Your task to perform on an android device: Search for the best selling coffee table on Crate & Barrel Image 0: 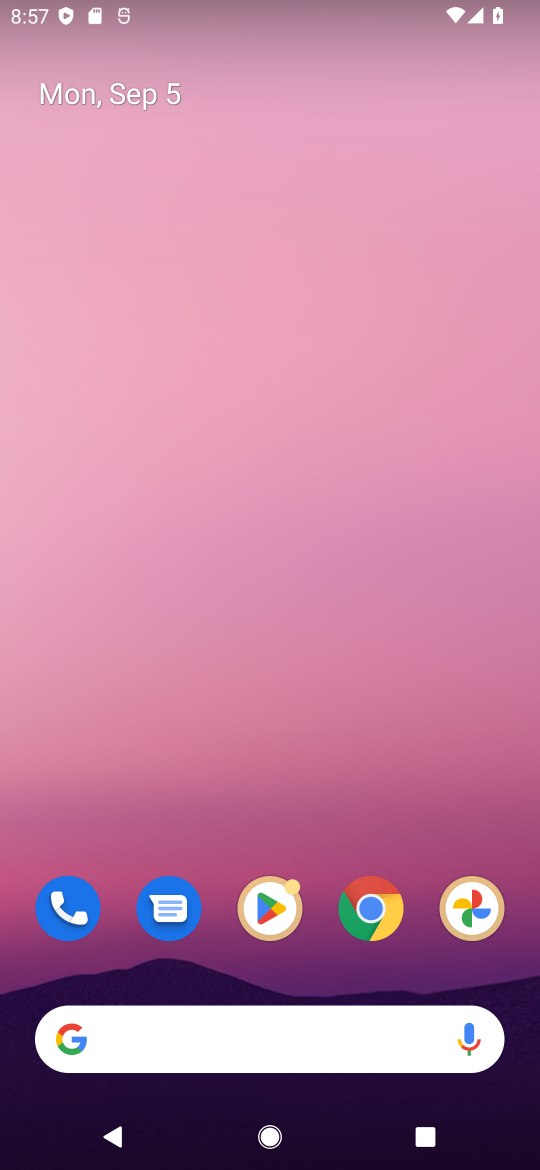
Step 0: click (189, 10)
Your task to perform on an android device: Search for the best selling coffee table on Crate & Barrel Image 1: 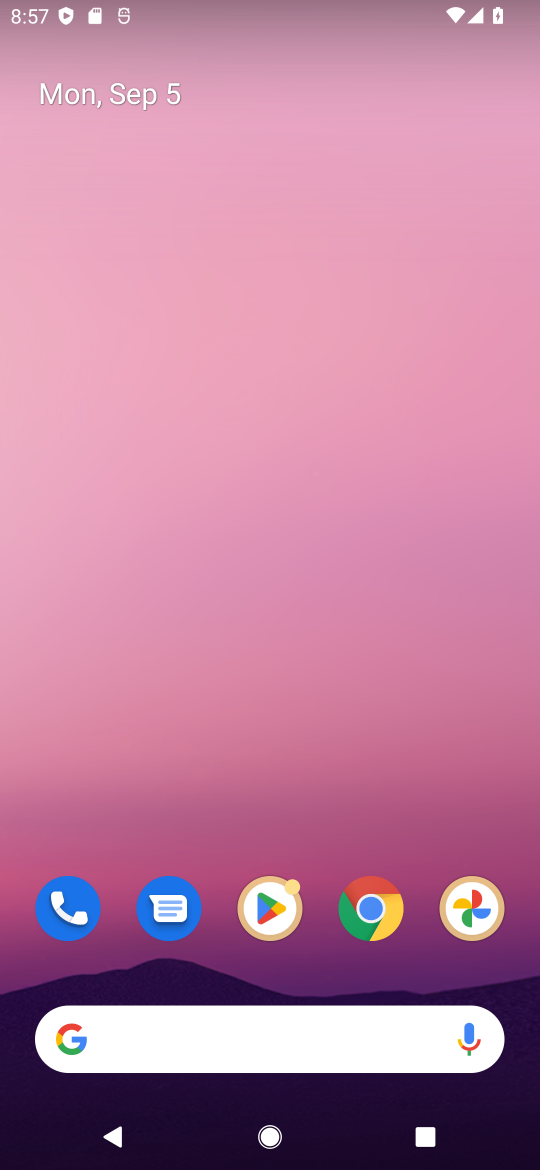
Step 1: click (385, 891)
Your task to perform on an android device: Search for the best selling coffee table on Crate & Barrel Image 2: 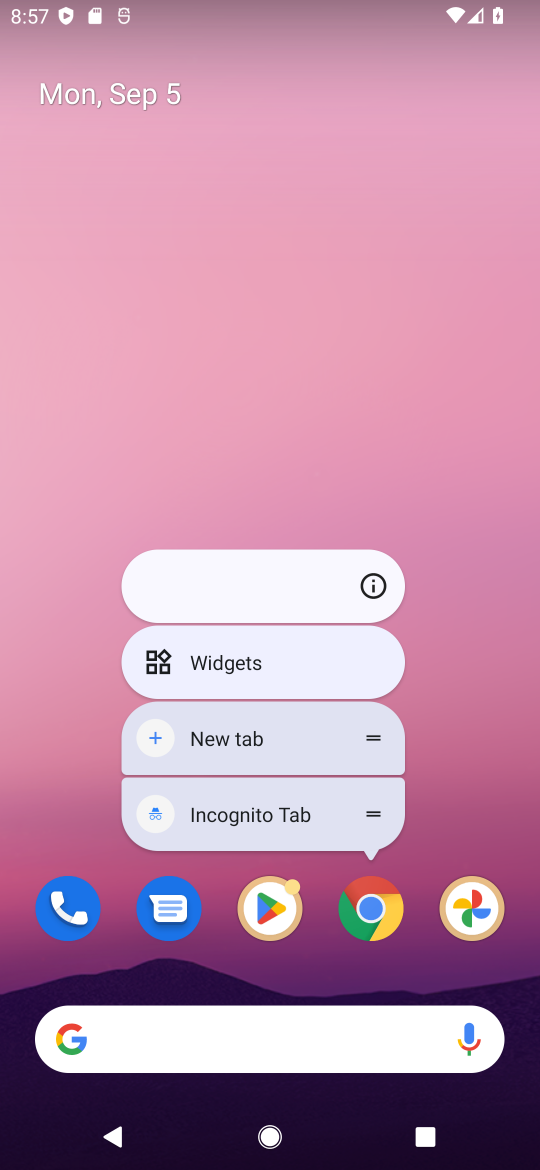
Step 2: click (385, 904)
Your task to perform on an android device: Search for the best selling coffee table on Crate & Barrel Image 3: 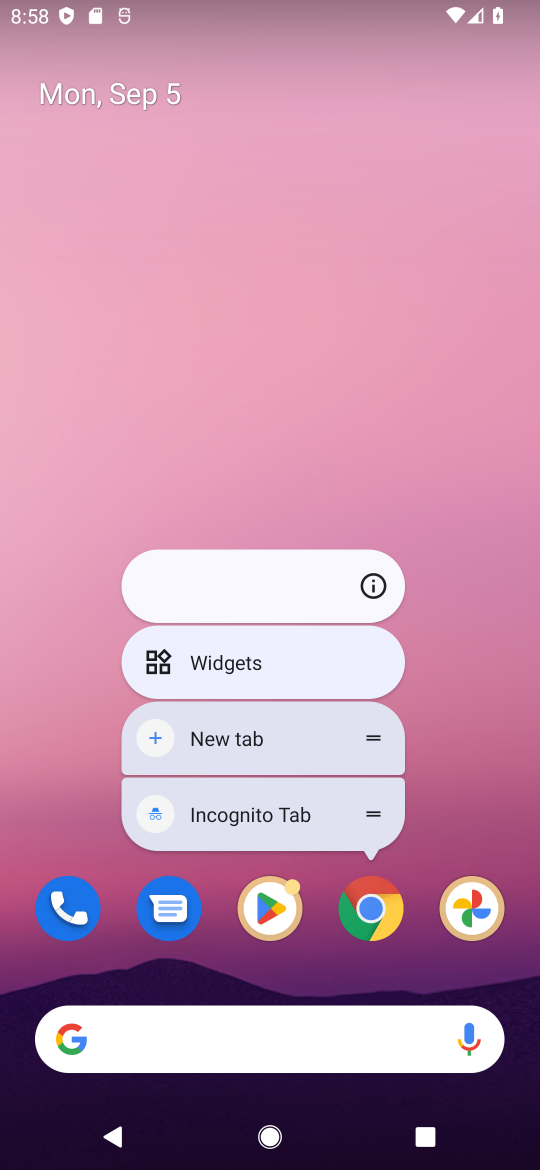
Step 3: click (375, 948)
Your task to perform on an android device: Search for the best selling coffee table on Crate & Barrel Image 4: 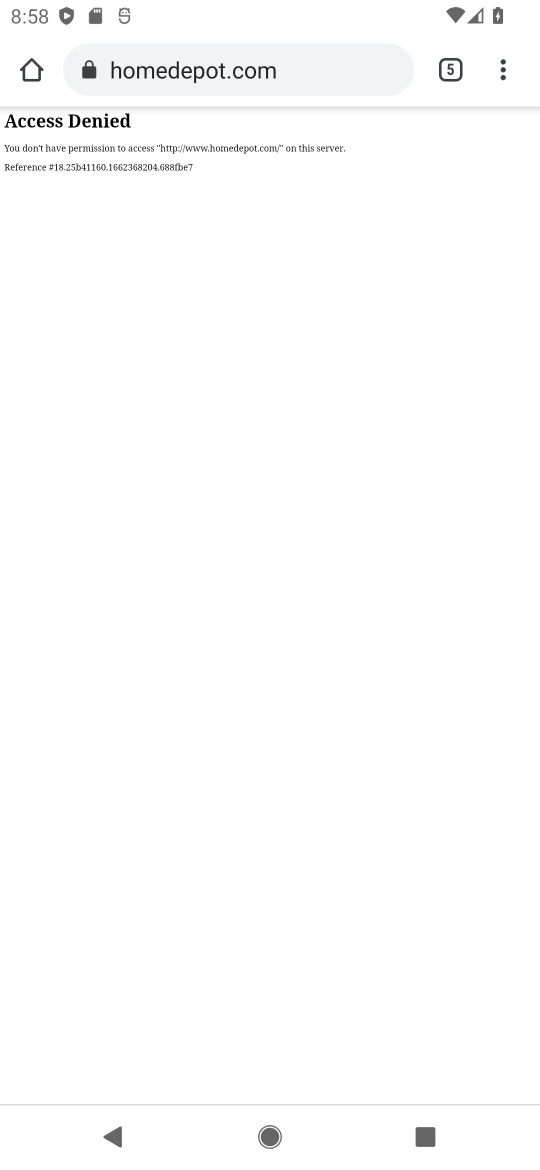
Step 4: click (341, 65)
Your task to perform on an android device: Search for the best selling coffee table on Crate & Barrel Image 5: 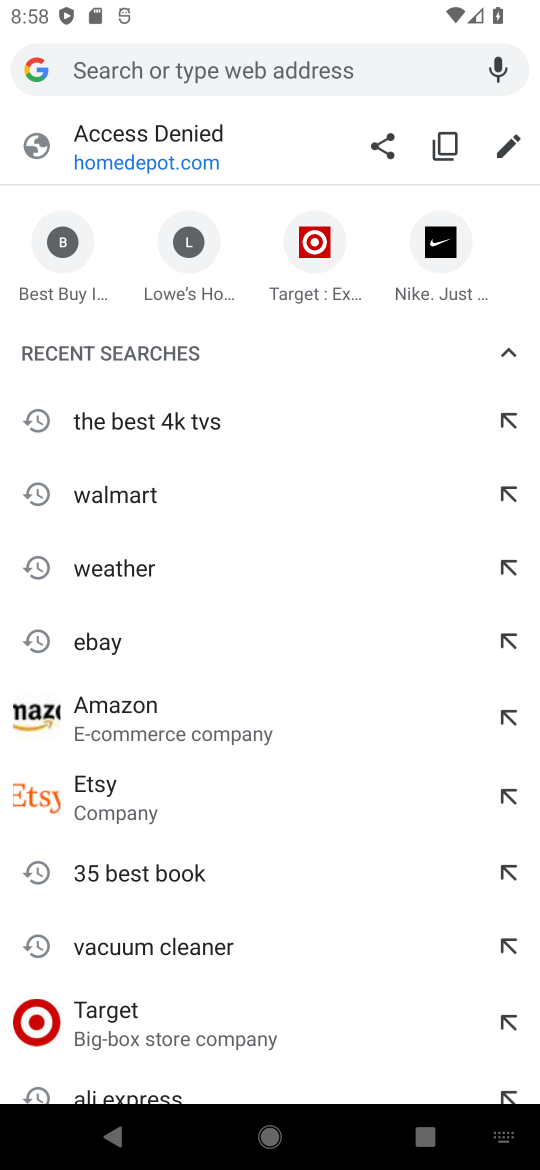
Step 5: type "Crate & Barrel"
Your task to perform on an android device: Search for the best selling coffee table on Crate & Barrel Image 6: 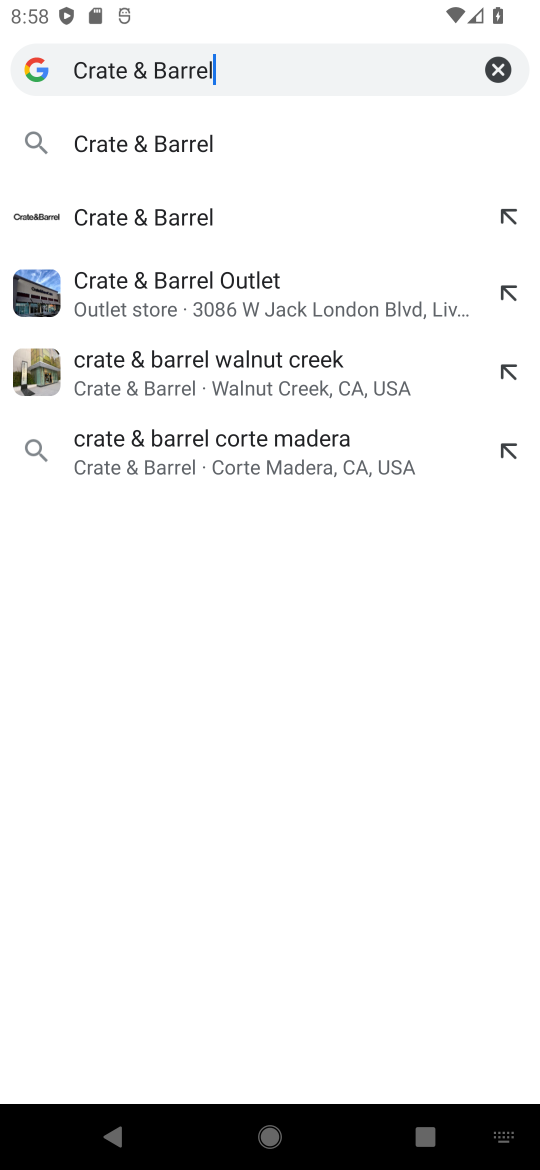
Step 6: click (169, 147)
Your task to perform on an android device: Search for the best selling coffee table on Crate & Barrel Image 7: 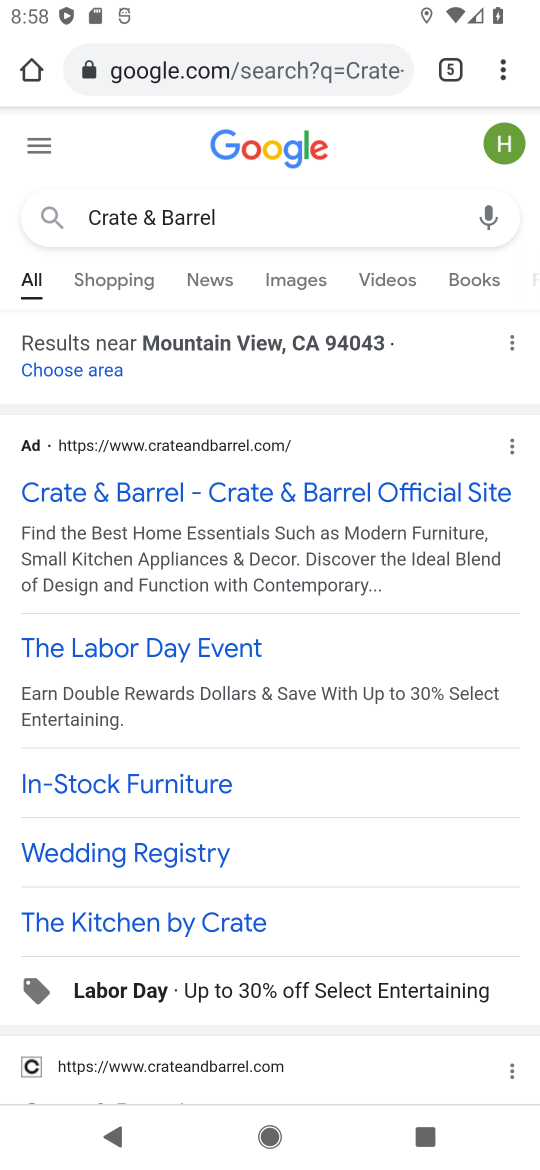
Step 7: click (205, 486)
Your task to perform on an android device: Search for the best selling coffee table on Crate & Barrel Image 8: 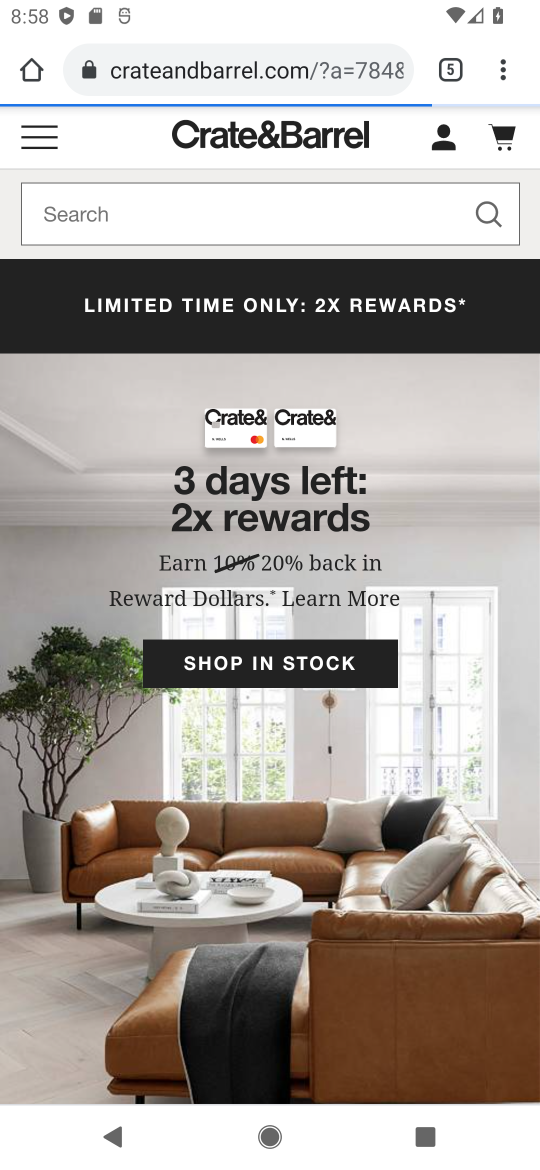
Step 8: task complete